Your task to perform on an android device: Open calendar and show me the first week of next month Image 0: 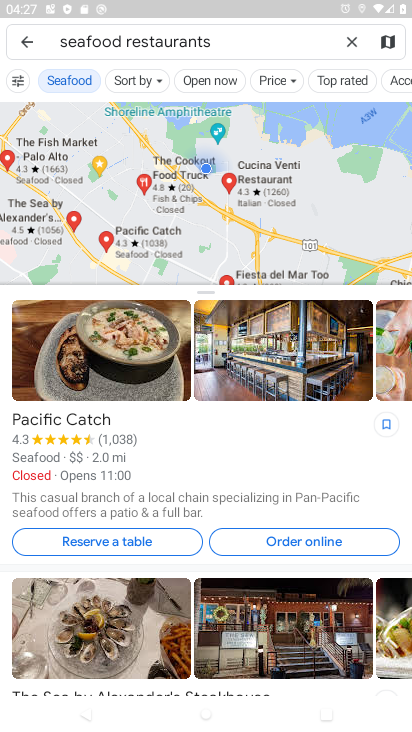
Step 0: press home button
Your task to perform on an android device: Open calendar and show me the first week of next month Image 1: 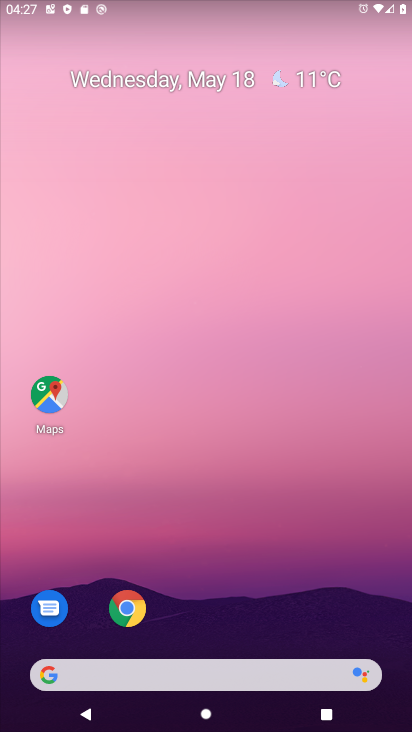
Step 1: click (167, 68)
Your task to perform on an android device: Open calendar and show me the first week of next month Image 2: 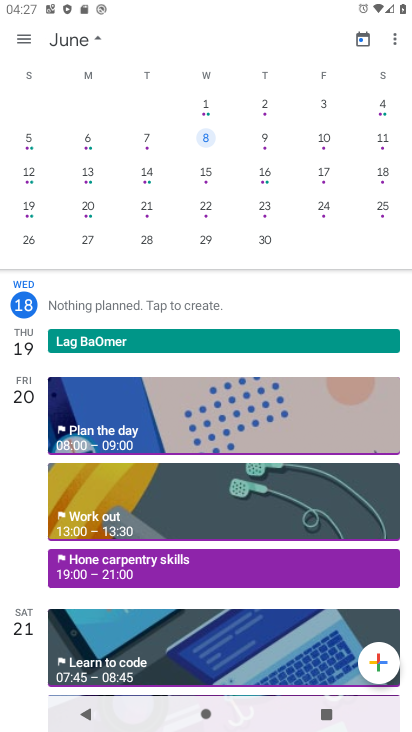
Step 2: click (201, 108)
Your task to perform on an android device: Open calendar and show me the first week of next month Image 3: 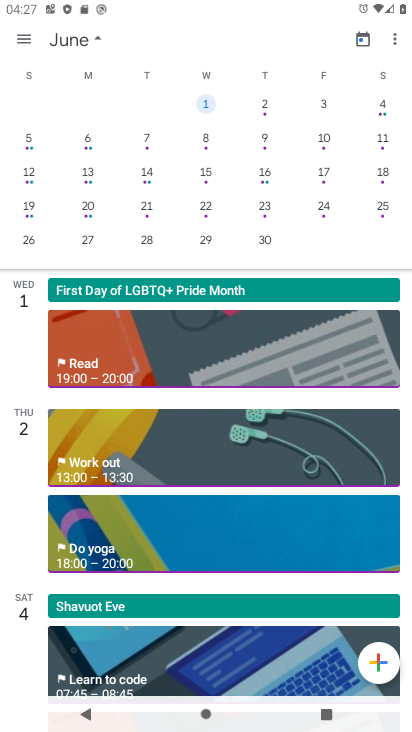
Step 3: task complete